Your task to perform on an android device: Show me the alarms in the clock app Image 0: 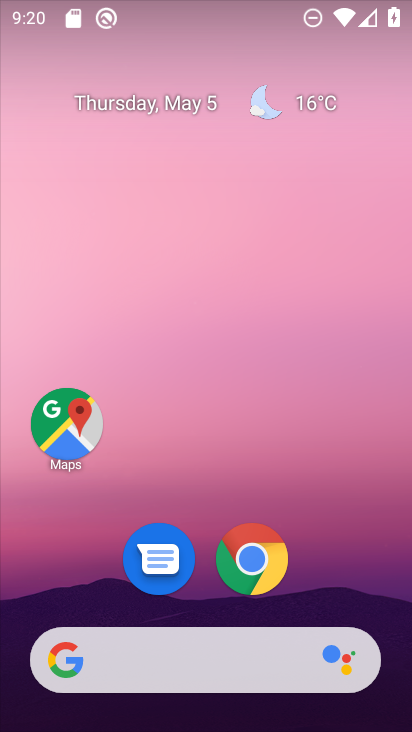
Step 0: drag from (378, 612) to (358, 19)
Your task to perform on an android device: Show me the alarms in the clock app Image 1: 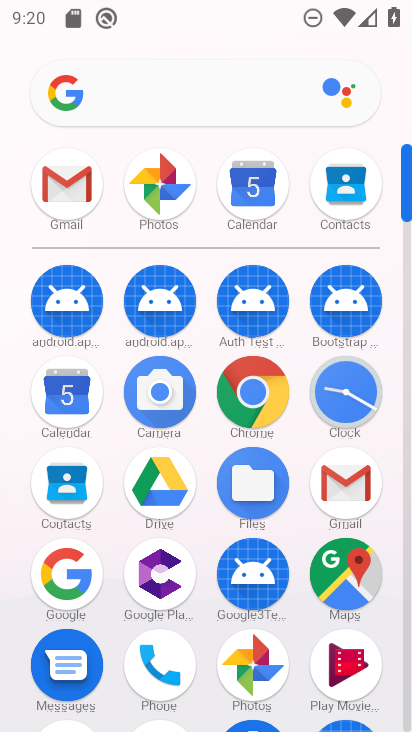
Step 1: click (340, 400)
Your task to perform on an android device: Show me the alarms in the clock app Image 2: 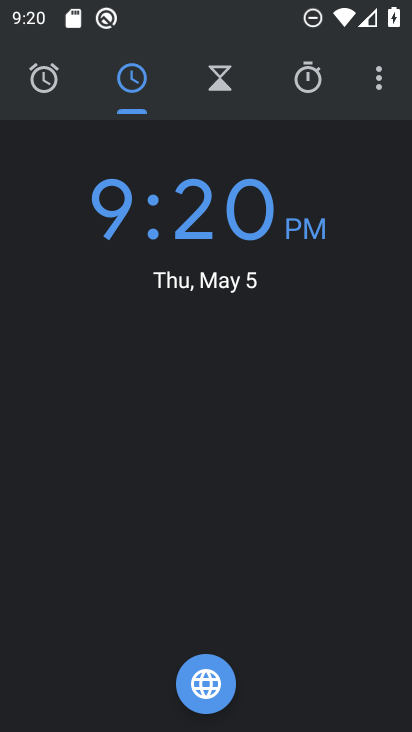
Step 2: click (46, 77)
Your task to perform on an android device: Show me the alarms in the clock app Image 3: 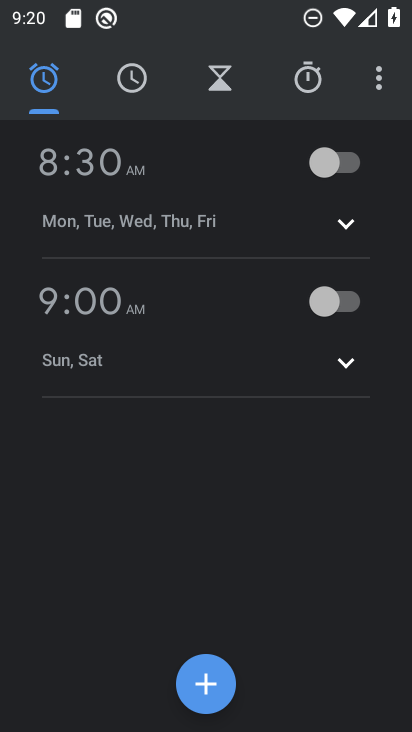
Step 3: task complete